Your task to perform on an android device: change text size in settings app Image 0: 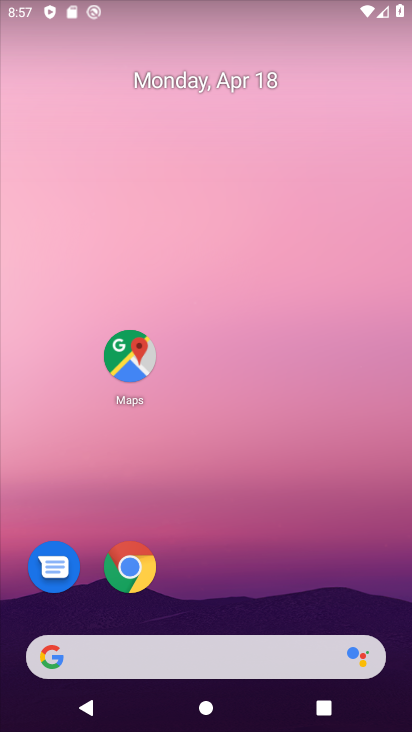
Step 0: click (334, 280)
Your task to perform on an android device: change text size in settings app Image 1: 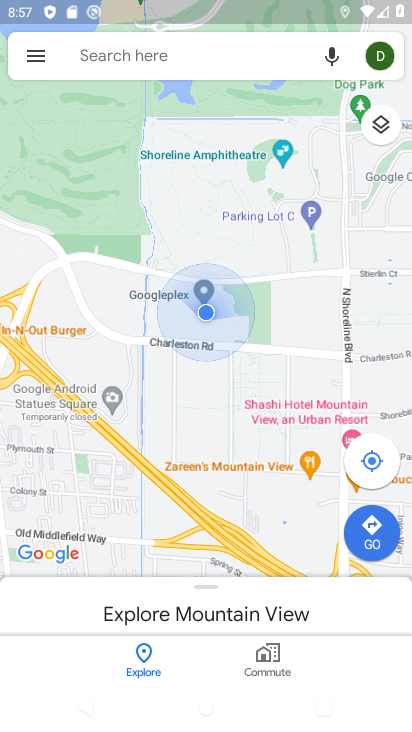
Step 1: press back button
Your task to perform on an android device: change text size in settings app Image 2: 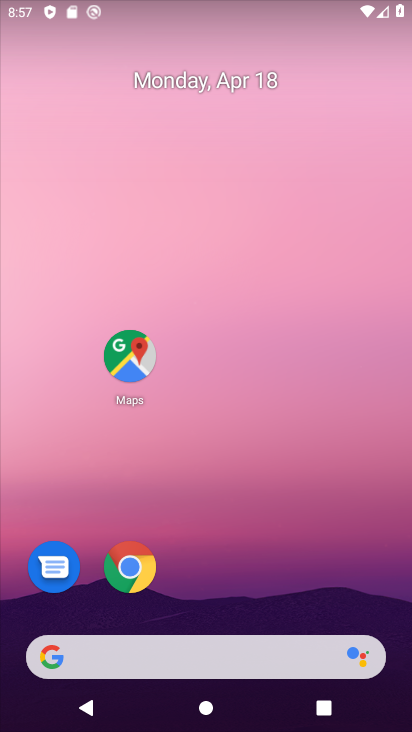
Step 2: drag from (240, 674) to (347, 266)
Your task to perform on an android device: change text size in settings app Image 3: 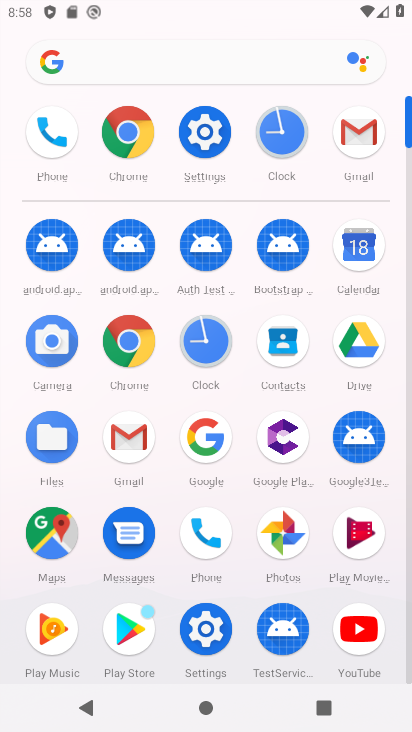
Step 3: click (206, 629)
Your task to perform on an android device: change text size in settings app Image 4: 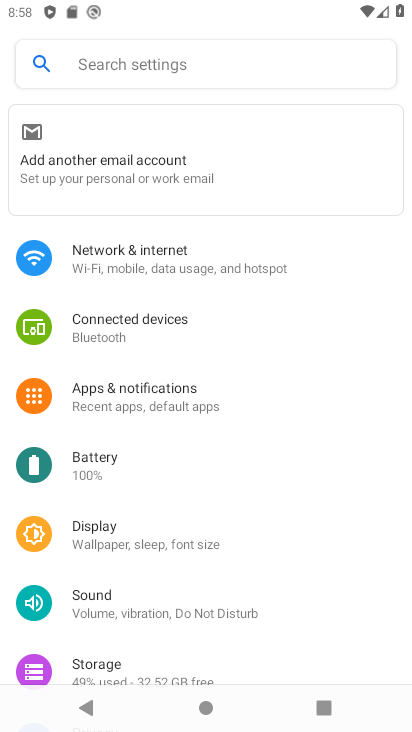
Step 4: click (182, 68)
Your task to perform on an android device: change text size in settings app Image 5: 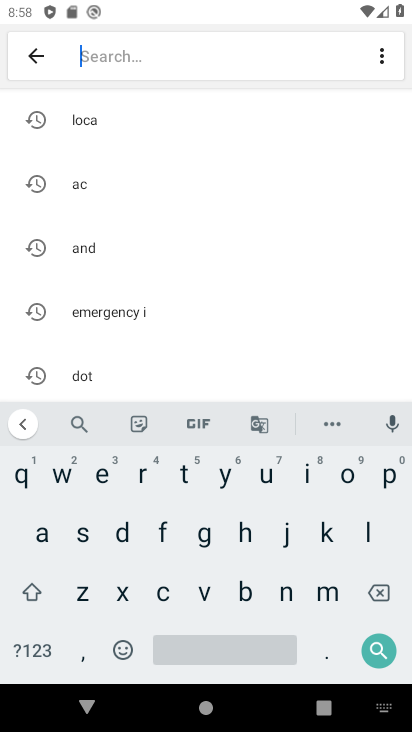
Step 5: click (84, 533)
Your task to perform on an android device: change text size in settings app Image 6: 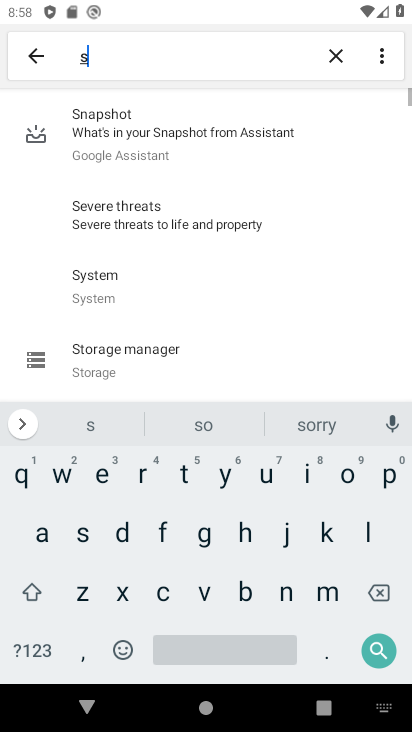
Step 6: click (307, 478)
Your task to perform on an android device: change text size in settings app Image 7: 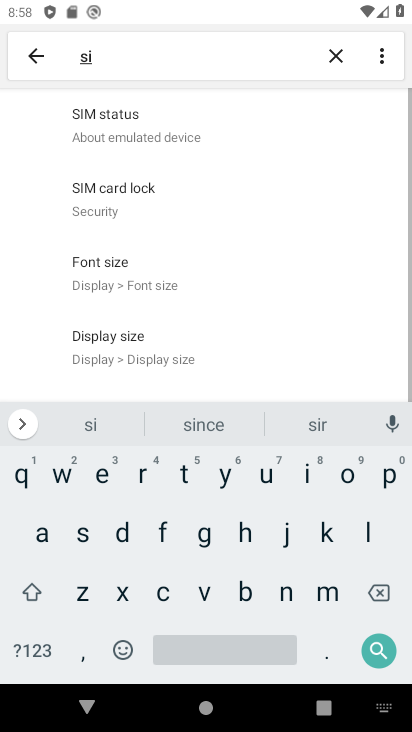
Step 7: click (79, 593)
Your task to perform on an android device: change text size in settings app Image 8: 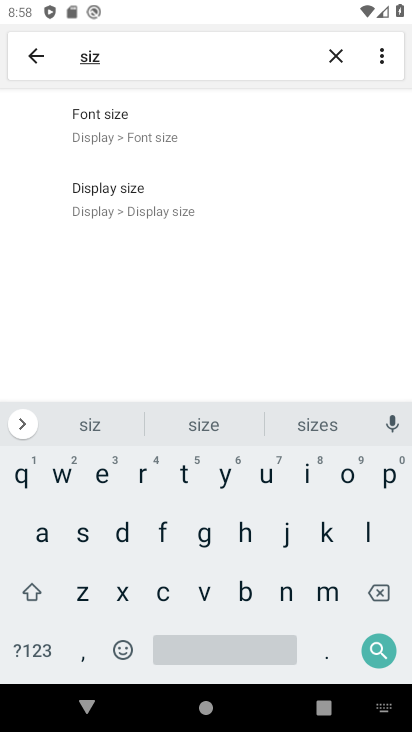
Step 8: click (143, 132)
Your task to perform on an android device: change text size in settings app Image 9: 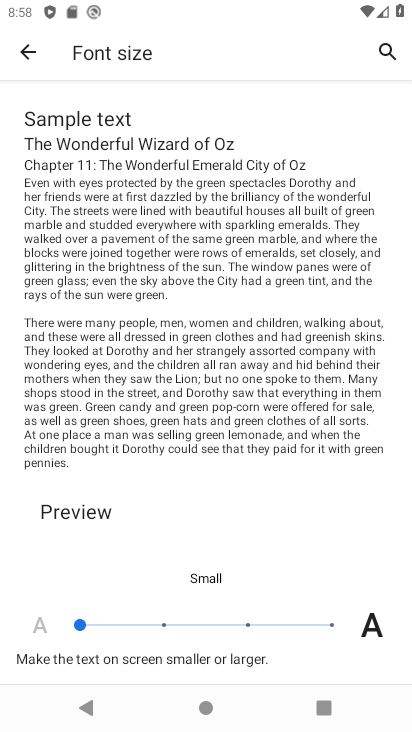
Step 9: click (159, 622)
Your task to perform on an android device: change text size in settings app Image 10: 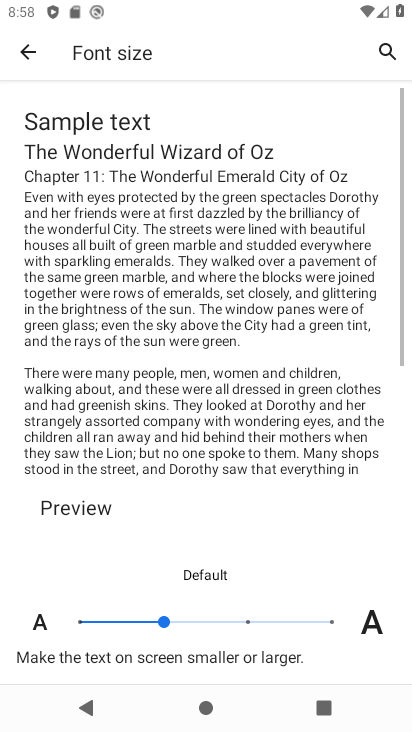
Step 10: task complete